Your task to perform on an android device: Open eBay Image 0: 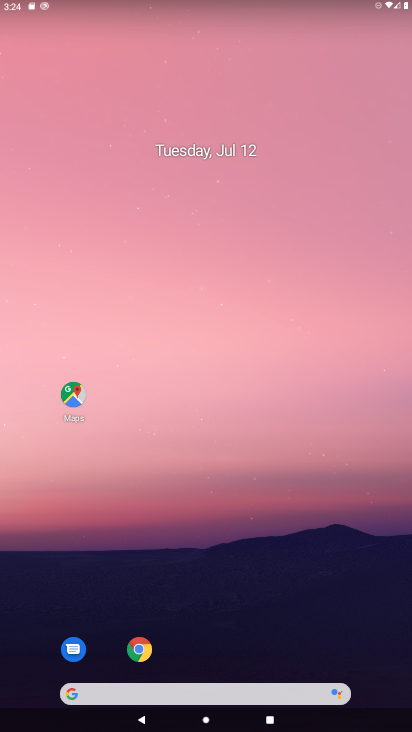
Step 0: drag from (314, 648) to (168, 115)
Your task to perform on an android device: Open eBay Image 1: 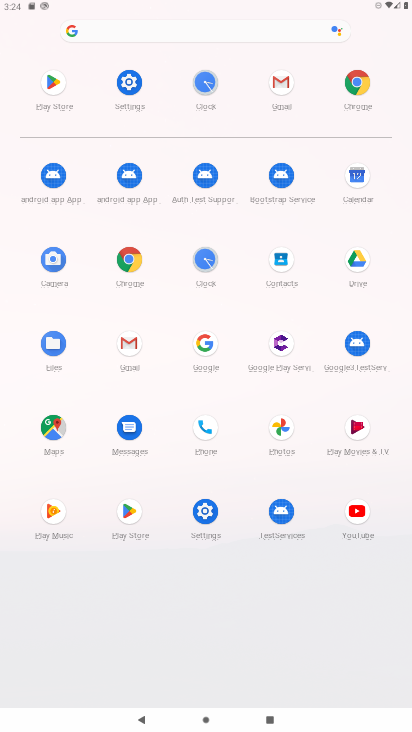
Step 1: click (360, 76)
Your task to perform on an android device: Open eBay Image 2: 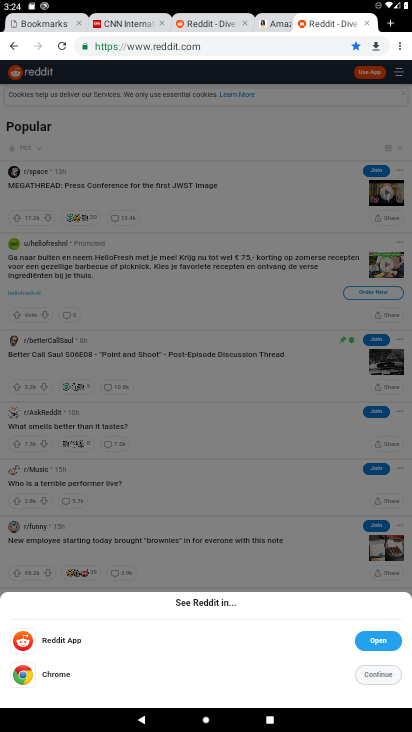
Step 2: click (210, 56)
Your task to perform on an android device: Open eBay Image 3: 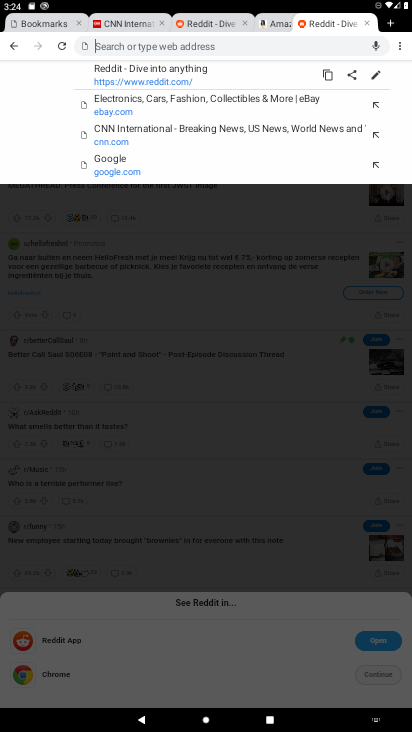
Step 3: click (276, 93)
Your task to perform on an android device: Open eBay Image 4: 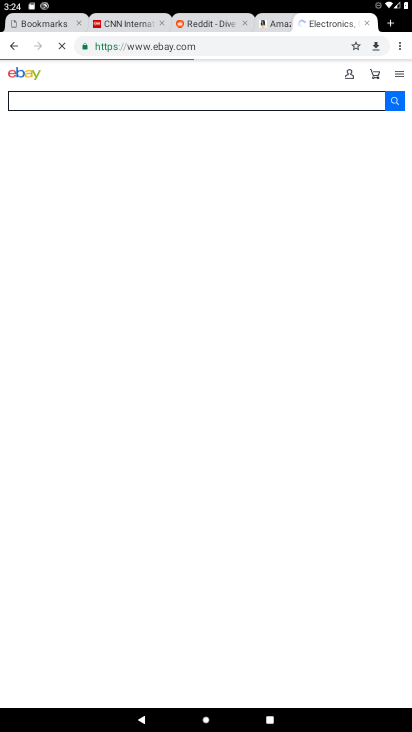
Step 4: task complete